Your task to perform on an android device: toggle data saver in the chrome app Image 0: 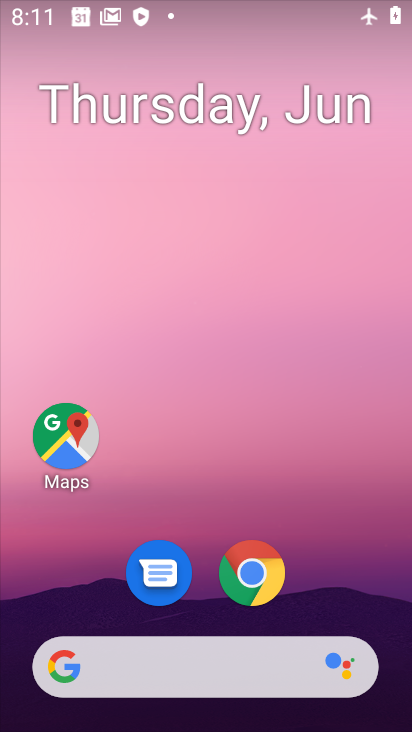
Step 0: drag from (330, 613) to (297, 258)
Your task to perform on an android device: toggle data saver in the chrome app Image 1: 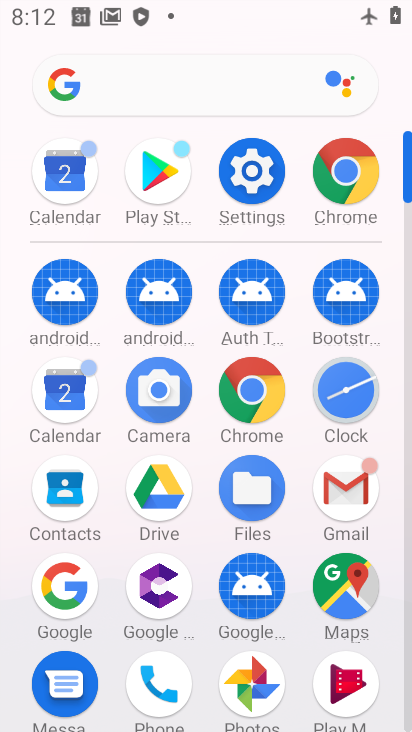
Step 1: click (347, 172)
Your task to perform on an android device: toggle data saver in the chrome app Image 2: 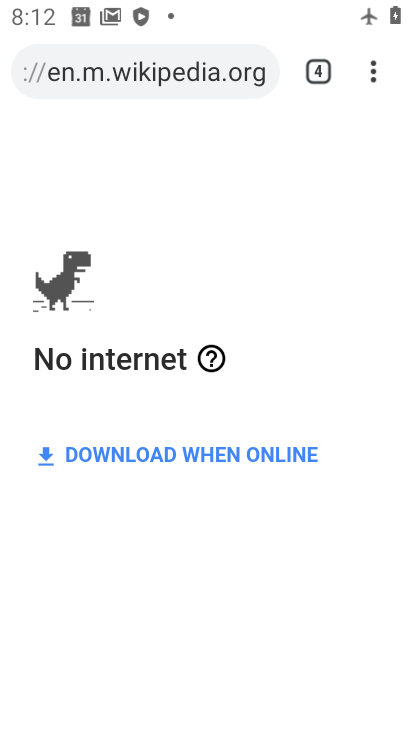
Step 2: click (366, 67)
Your task to perform on an android device: toggle data saver in the chrome app Image 3: 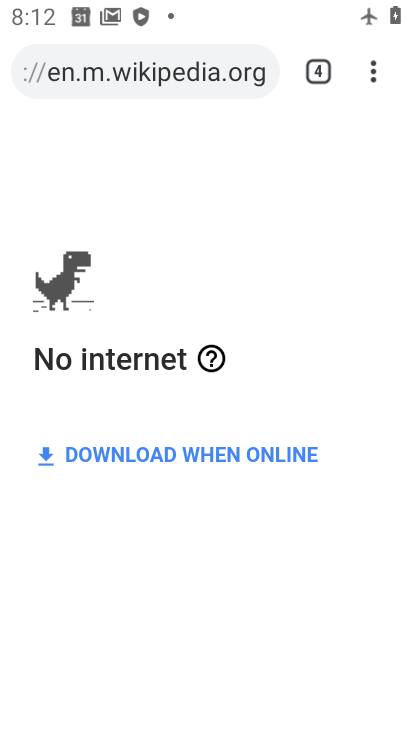
Step 3: click (377, 54)
Your task to perform on an android device: toggle data saver in the chrome app Image 4: 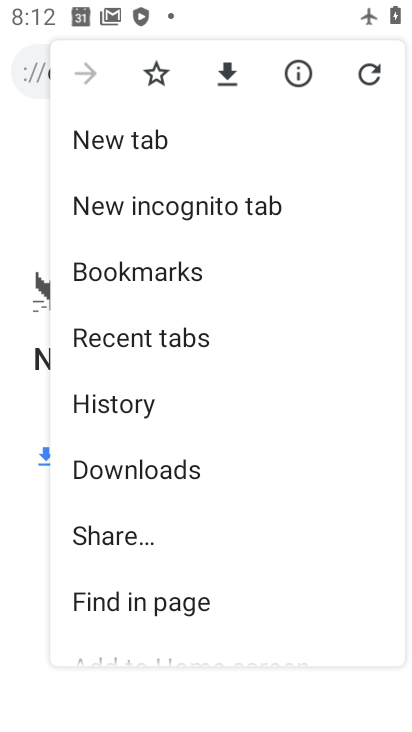
Step 4: drag from (207, 585) to (282, 168)
Your task to perform on an android device: toggle data saver in the chrome app Image 5: 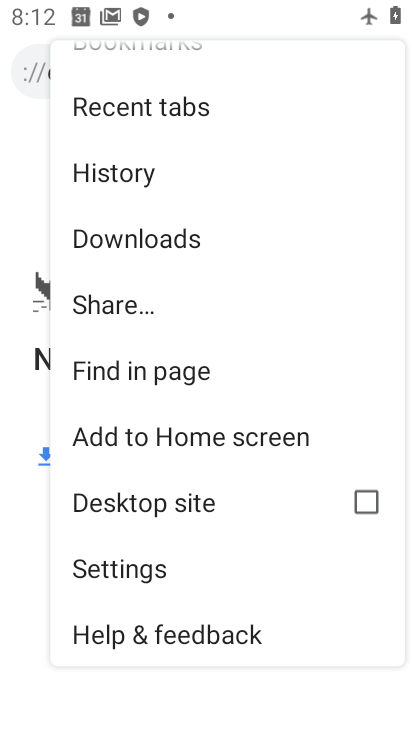
Step 5: click (151, 565)
Your task to perform on an android device: toggle data saver in the chrome app Image 6: 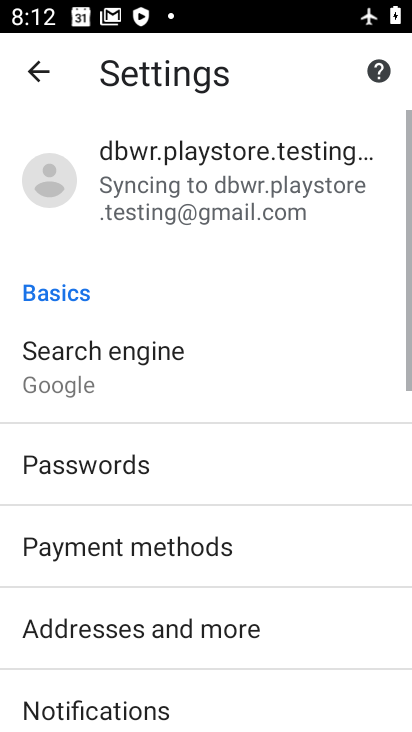
Step 6: drag from (187, 603) to (239, 301)
Your task to perform on an android device: toggle data saver in the chrome app Image 7: 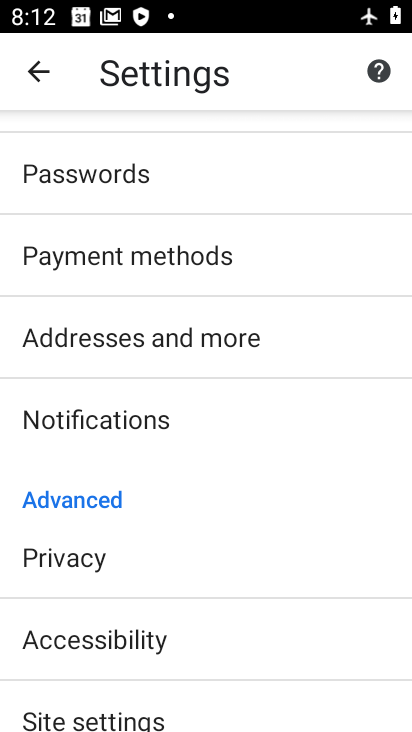
Step 7: drag from (155, 608) to (182, 375)
Your task to perform on an android device: toggle data saver in the chrome app Image 8: 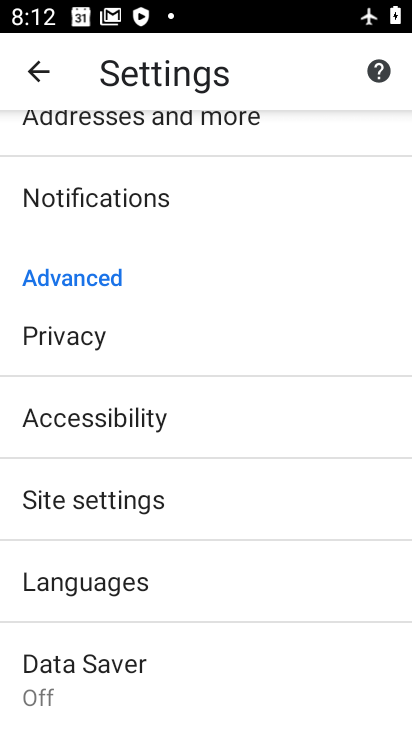
Step 8: click (189, 650)
Your task to perform on an android device: toggle data saver in the chrome app Image 9: 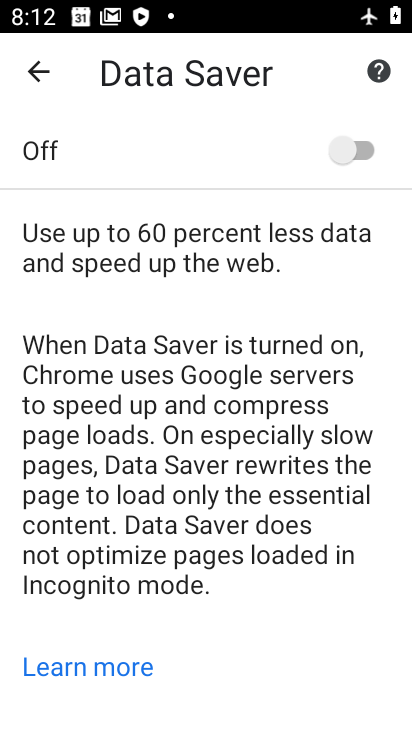
Step 9: click (349, 139)
Your task to perform on an android device: toggle data saver in the chrome app Image 10: 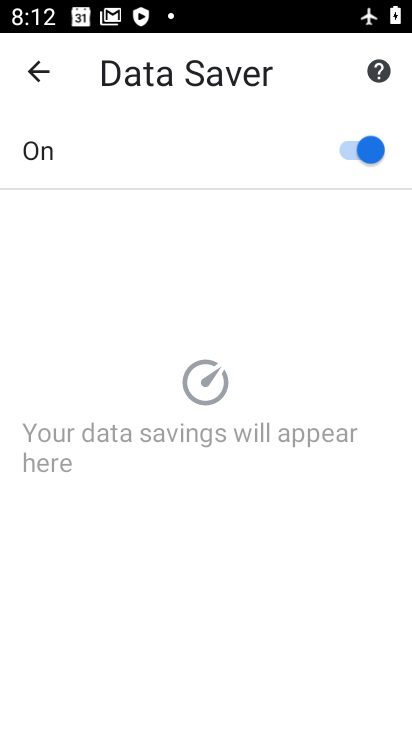
Step 10: task complete